Your task to perform on an android device: toggle sleep mode Image 0: 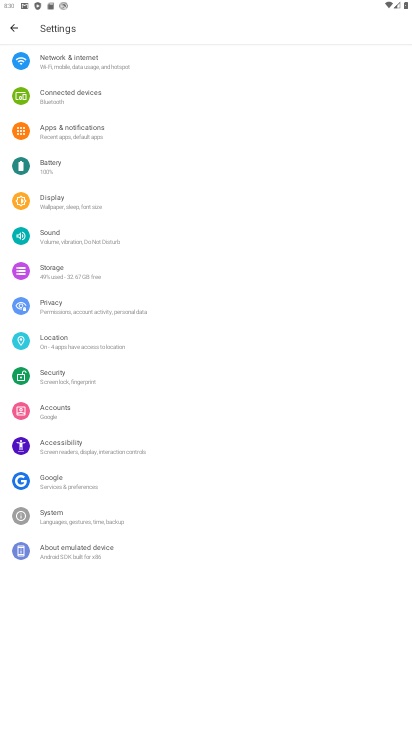
Step 0: drag from (200, 114) to (187, 611)
Your task to perform on an android device: toggle sleep mode Image 1: 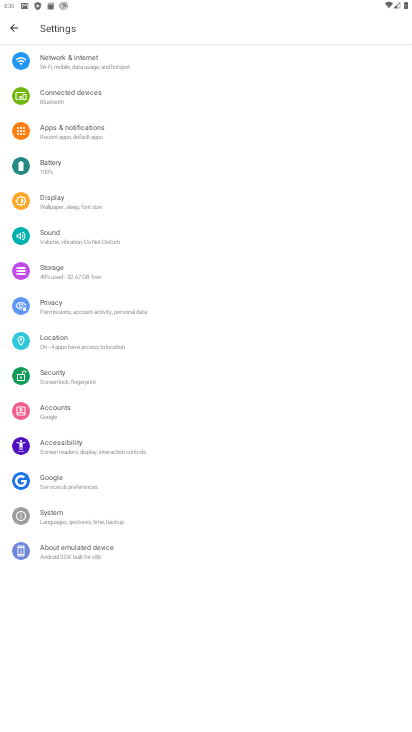
Step 1: click (127, 32)
Your task to perform on an android device: toggle sleep mode Image 2: 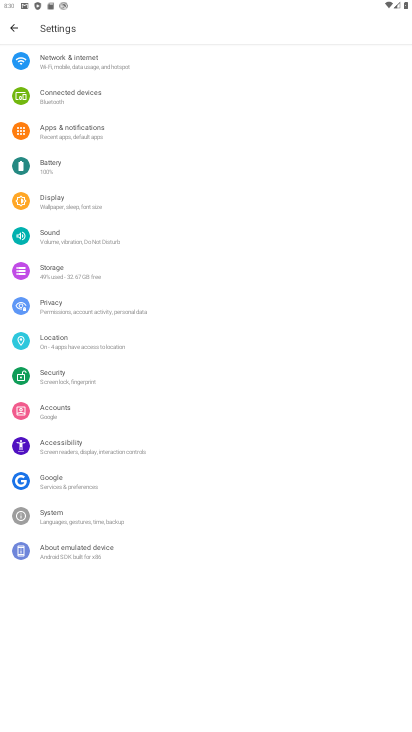
Step 2: drag from (215, 242) to (247, 614)
Your task to perform on an android device: toggle sleep mode Image 3: 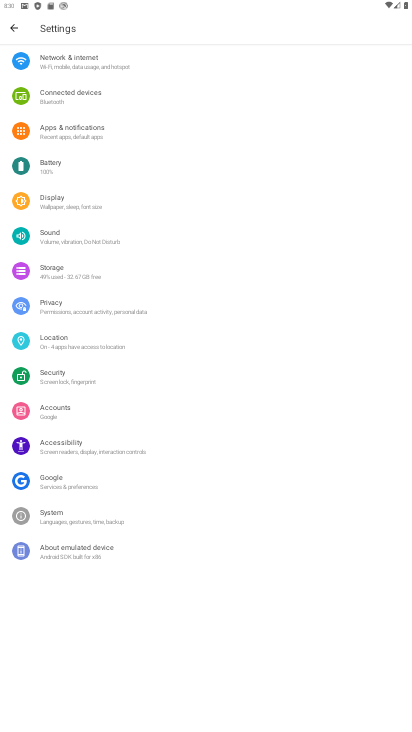
Step 3: drag from (147, 322) to (152, 451)
Your task to perform on an android device: toggle sleep mode Image 4: 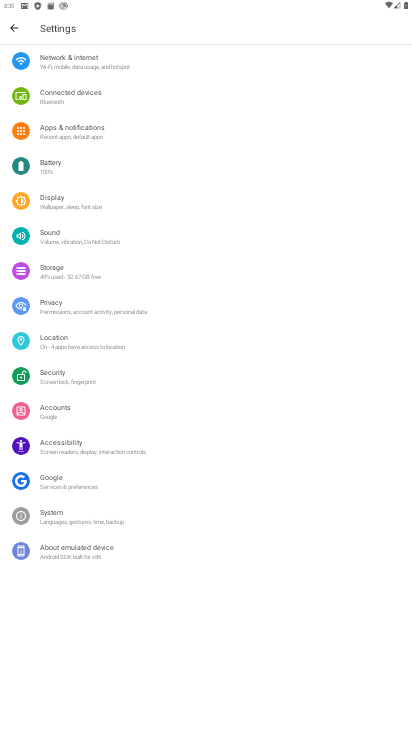
Step 4: click (64, 237)
Your task to perform on an android device: toggle sleep mode Image 5: 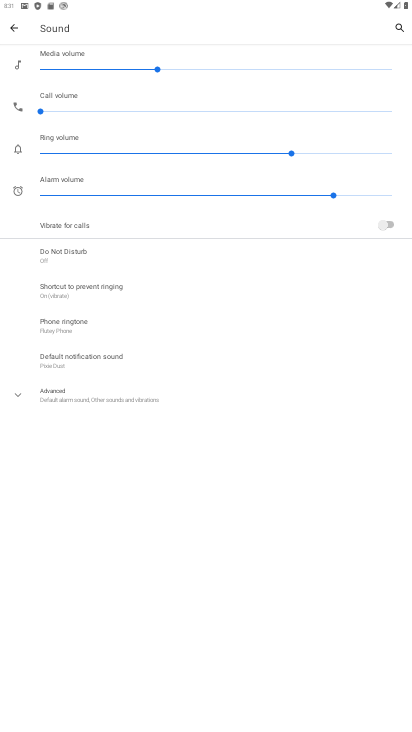
Step 5: task complete